Your task to perform on an android device: Go to Amazon Image 0: 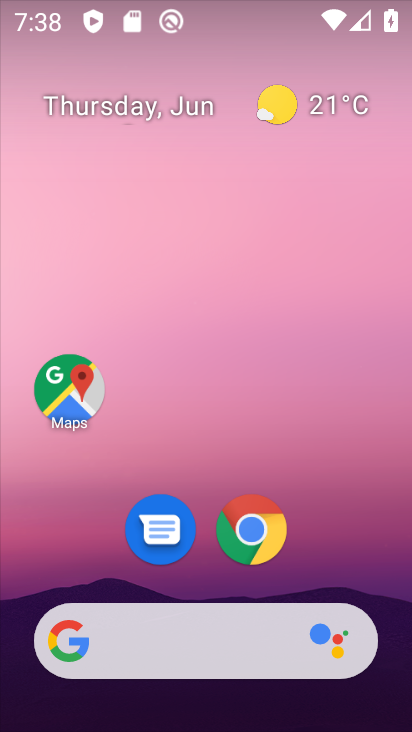
Step 0: click (260, 522)
Your task to perform on an android device: Go to Amazon Image 1: 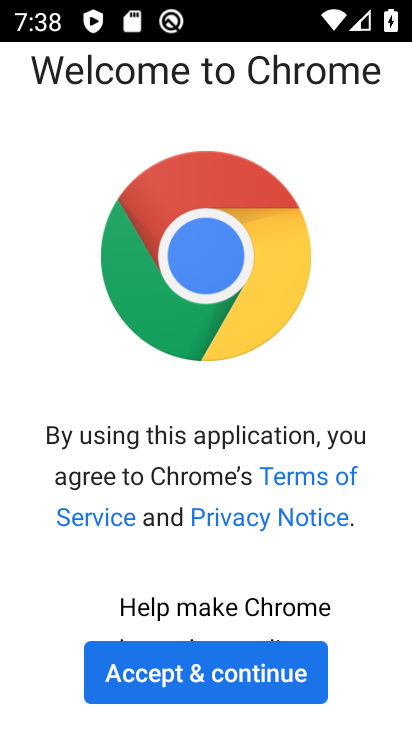
Step 1: click (133, 685)
Your task to perform on an android device: Go to Amazon Image 2: 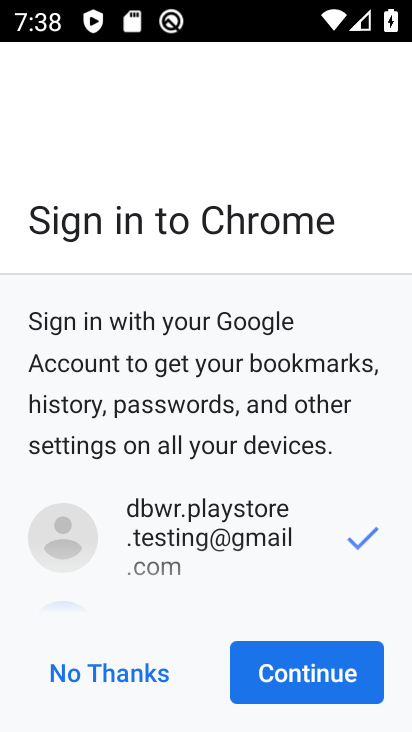
Step 2: click (272, 673)
Your task to perform on an android device: Go to Amazon Image 3: 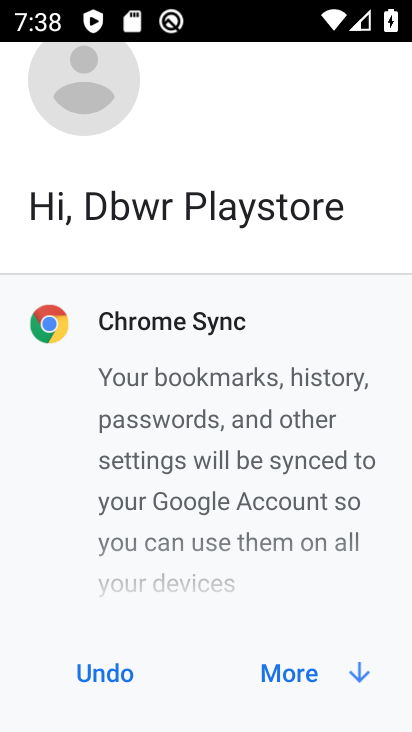
Step 3: click (272, 672)
Your task to perform on an android device: Go to Amazon Image 4: 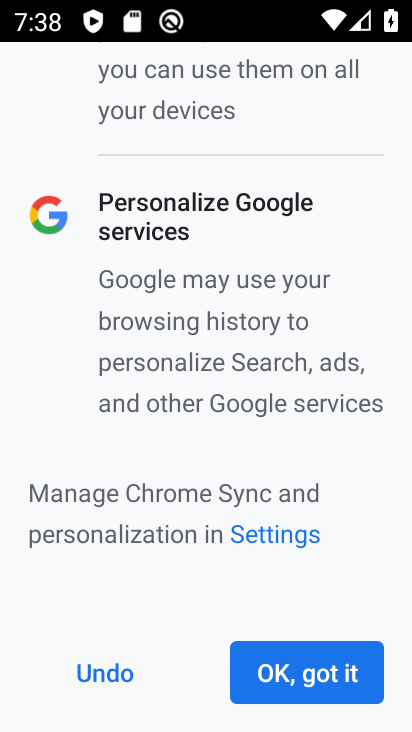
Step 4: click (272, 672)
Your task to perform on an android device: Go to Amazon Image 5: 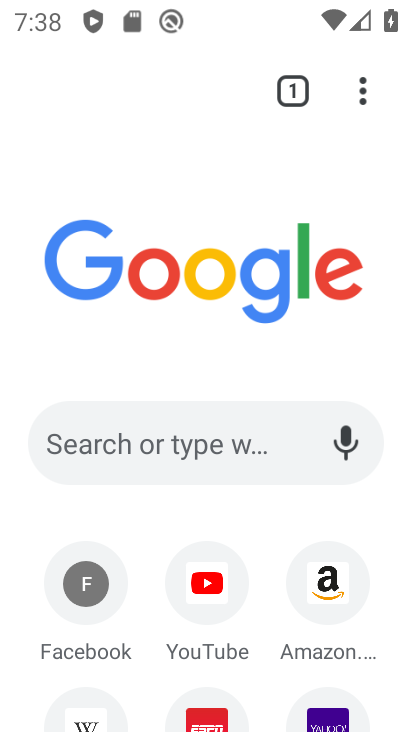
Step 5: click (203, 430)
Your task to perform on an android device: Go to Amazon Image 6: 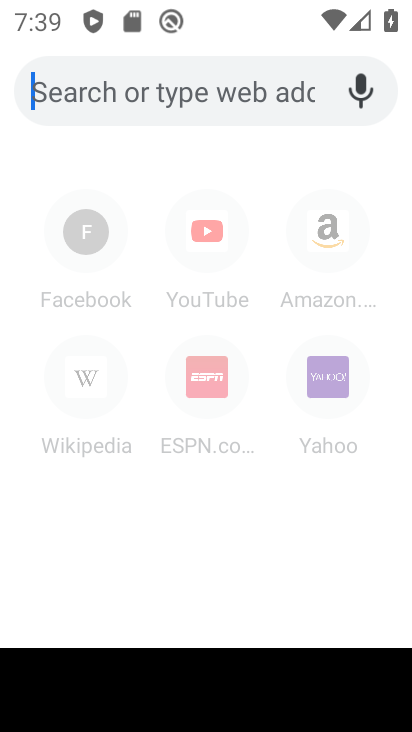
Step 6: type "Amazon"
Your task to perform on an android device: Go to Amazon Image 7: 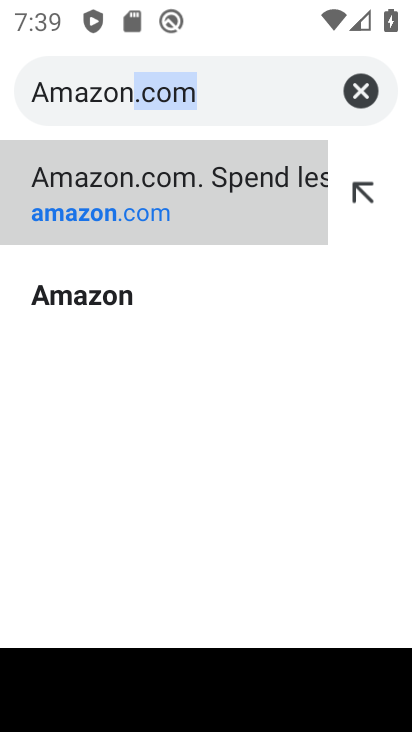
Step 7: click (99, 287)
Your task to perform on an android device: Go to Amazon Image 8: 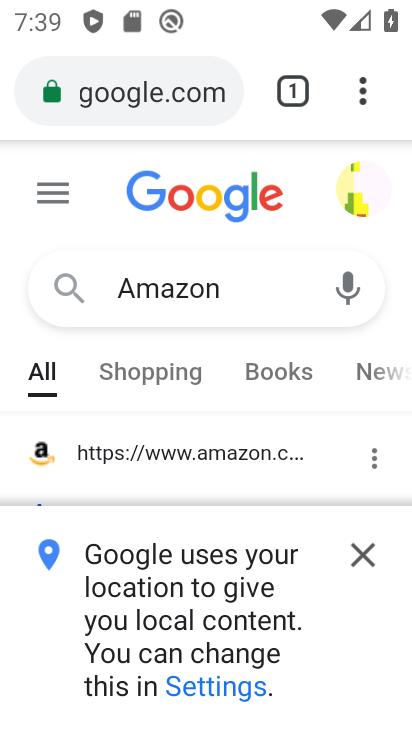
Step 8: task complete